Your task to perform on an android device: Open Youtube and go to "Your channel" Image 0: 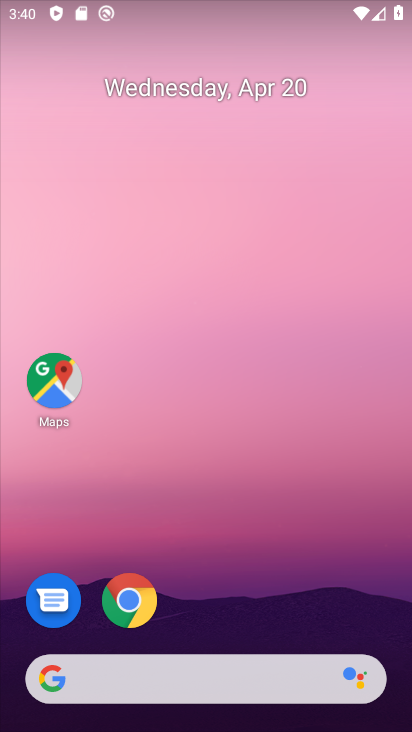
Step 0: drag from (204, 376) to (168, 235)
Your task to perform on an android device: Open Youtube and go to "Your channel" Image 1: 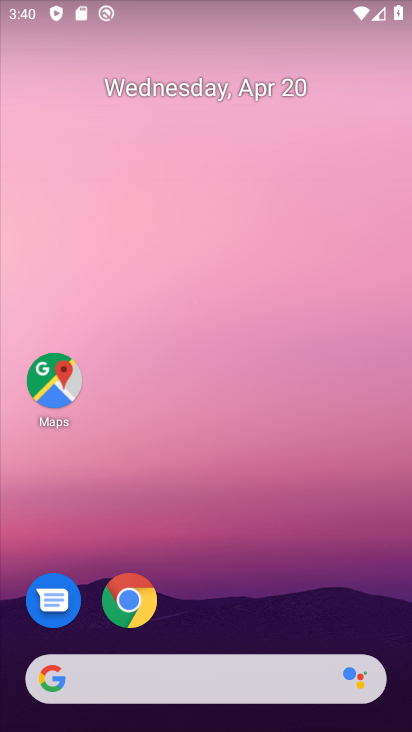
Step 1: drag from (235, 678) to (193, 13)
Your task to perform on an android device: Open Youtube and go to "Your channel" Image 2: 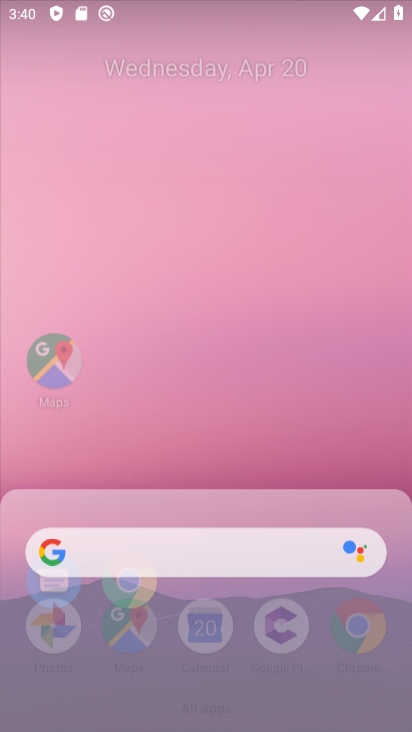
Step 2: drag from (350, 536) to (153, 58)
Your task to perform on an android device: Open Youtube and go to "Your channel" Image 3: 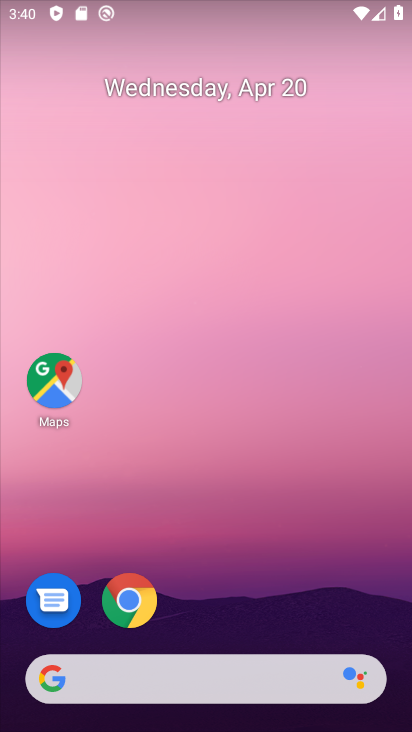
Step 3: drag from (310, 629) to (158, 133)
Your task to perform on an android device: Open Youtube and go to "Your channel" Image 4: 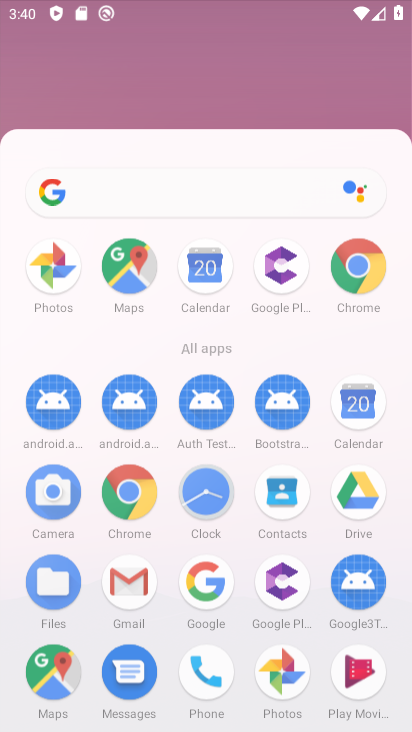
Step 4: drag from (307, 504) to (137, 146)
Your task to perform on an android device: Open Youtube and go to "Your channel" Image 5: 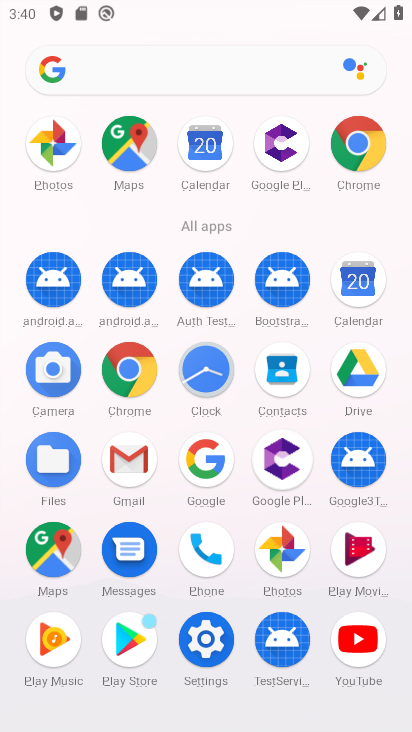
Step 5: drag from (351, 391) to (241, 37)
Your task to perform on an android device: Open Youtube and go to "Your channel" Image 6: 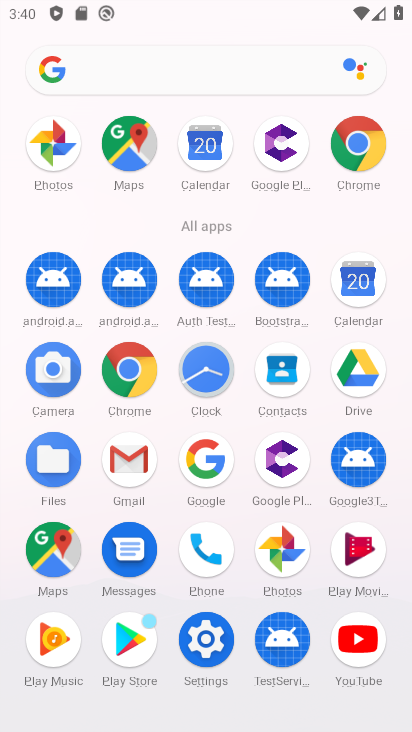
Step 6: click (359, 647)
Your task to perform on an android device: Open Youtube and go to "Your channel" Image 7: 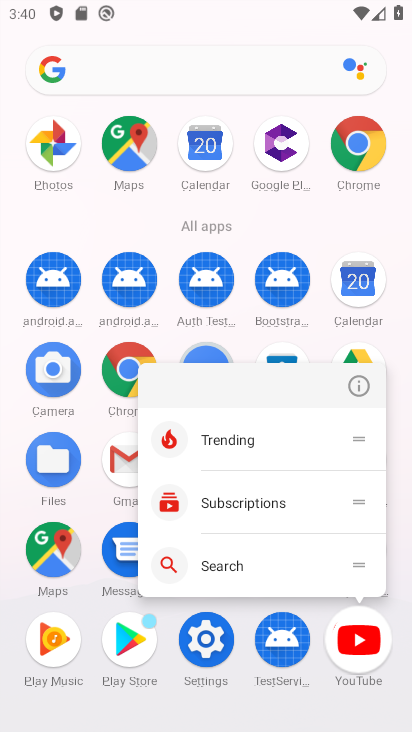
Step 7: click (359, 647)
Your task to perform on an android device: Open Youtube and go to "Your channel" Image 8: 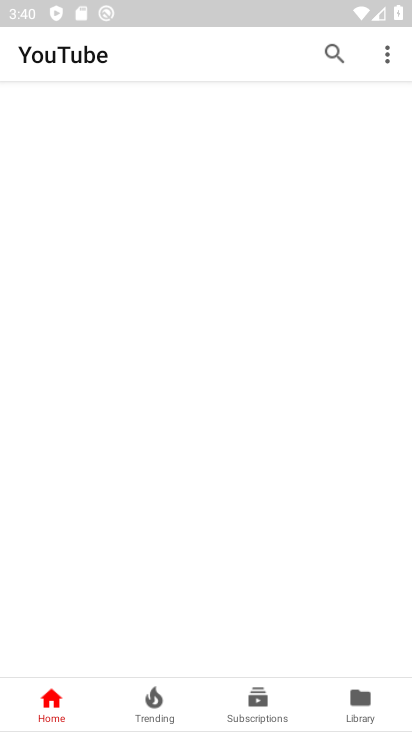
Step 8: click (191, 333)
Your task to perform on an android device: Open Youtube and go to "Your channel" Image 9: 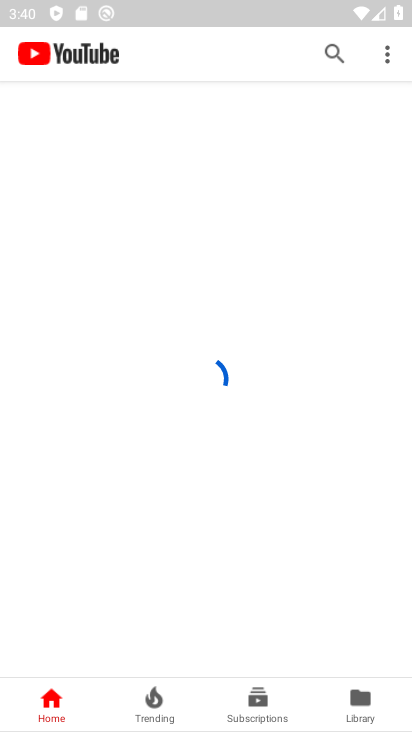
Step 9: click (191, 333)
Your task to perform on an android device: Open Youtube and go to "Your channel" Image 10: 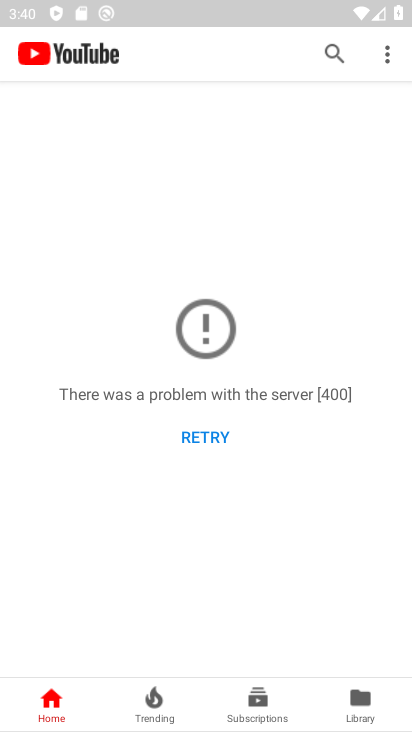
Step 10: click (31, 49)
Your task to perform on an android device: Open Youtube and go to "Your channel" Image 11: 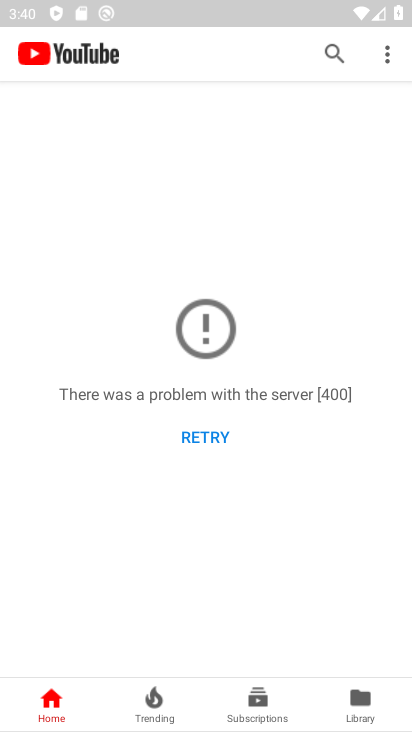
Step 11: click (48, 714)
Your task to perform on an android device: Open Youtube and go to "Your channel" Image 12: 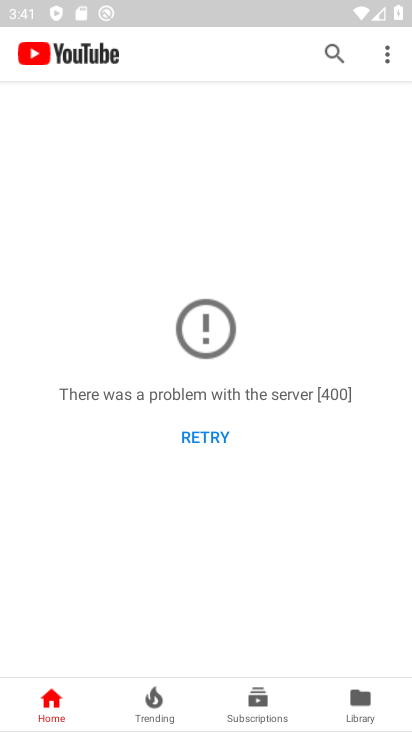
Step 12: drag from (236, 634) to (188, 446)
Your task to perform on an android device: Open Youtube and go to "Your channel" Image 13: 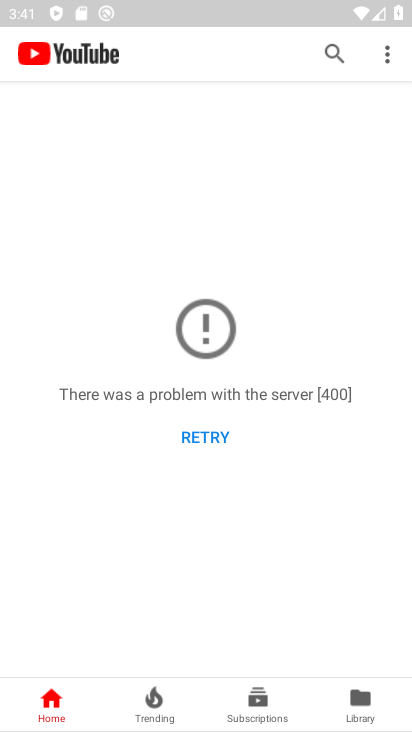
Step 13: click (360, 697)
Your task to perform on an android device: Open Youtube and go to "Your channel" Image 14: 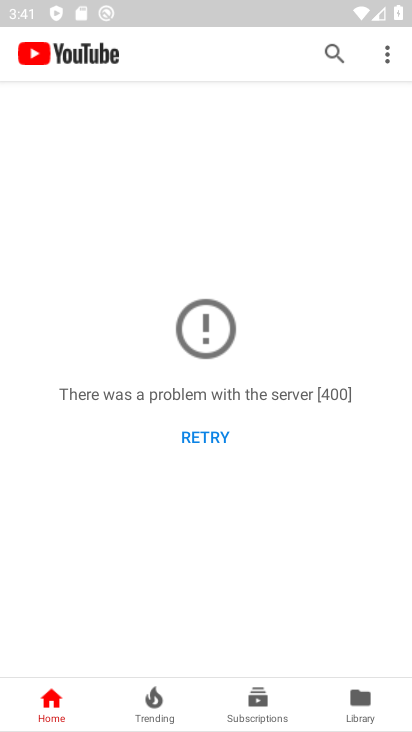
Step 14: click (358, 698)
Your task to perform on an android device: Open Youtube and go to "Your channel" Image 15: 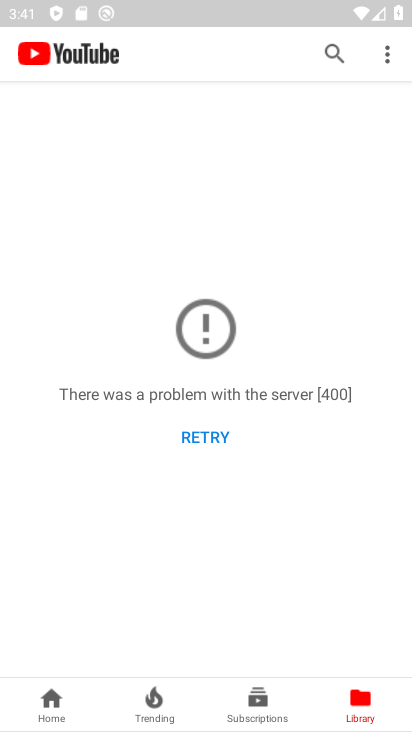
Step 15: task complete